Your task to perform on an android device: Open Yahoo.com Image 0: 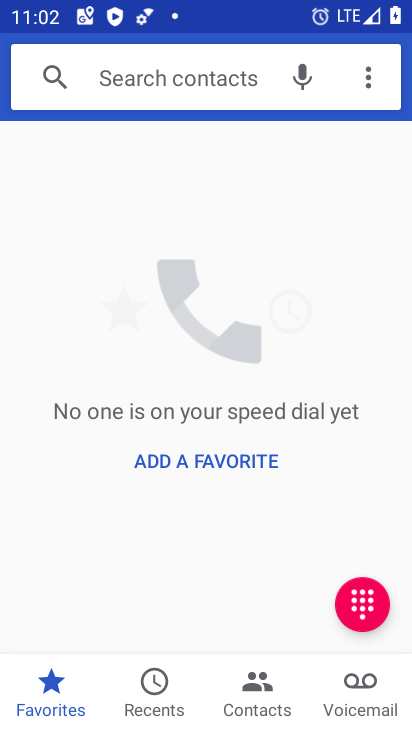
Step 0: press home button
Your task to perform on an android device: Open Yahoo.com Image 1: 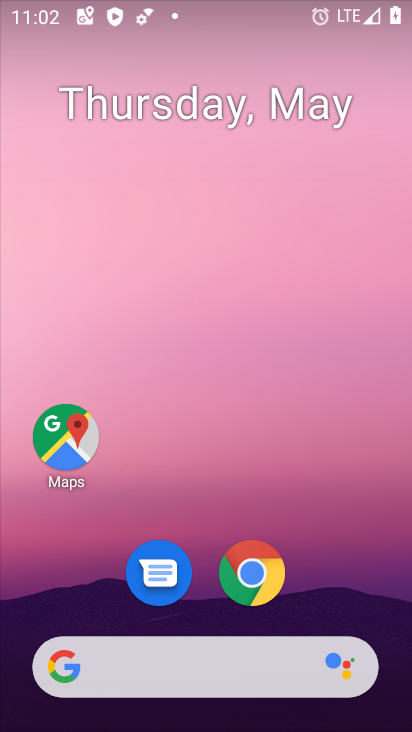
Step 1: click (267, 574)
Your task to perform on an android device: Open Yahoo.com Image 2: 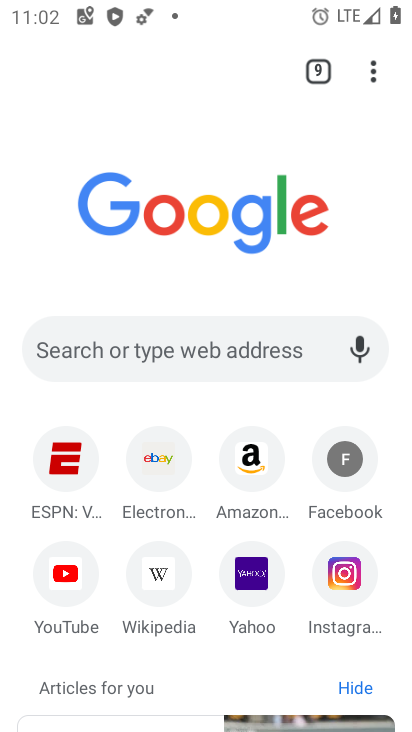
Step 2: click (307, 66)
Your task to perform on an android device: Open Yahoo.com Image 3: 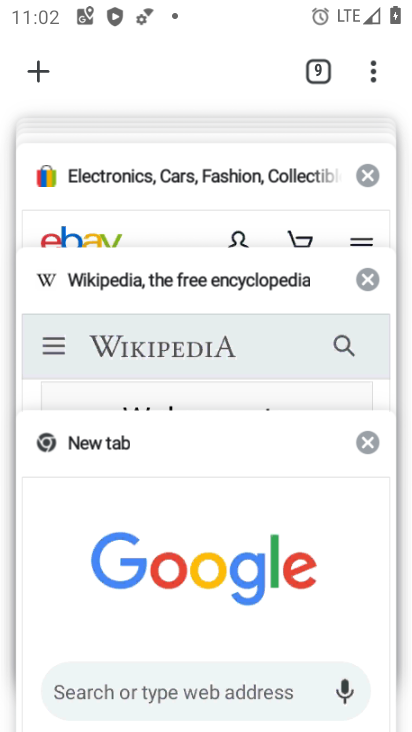
Step 3: click (34, 82)
Your task to perform on an android device: Open Yahoo.com Image 4: 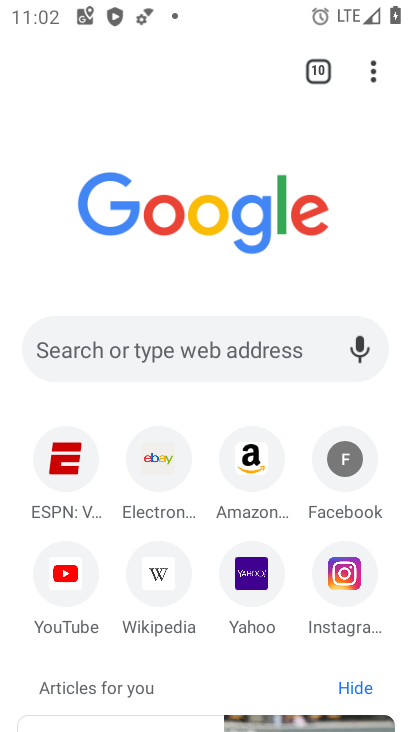
Step 4: click (258, 574)
Your task to perform on an android device: Open Yahoo.com Image 5: 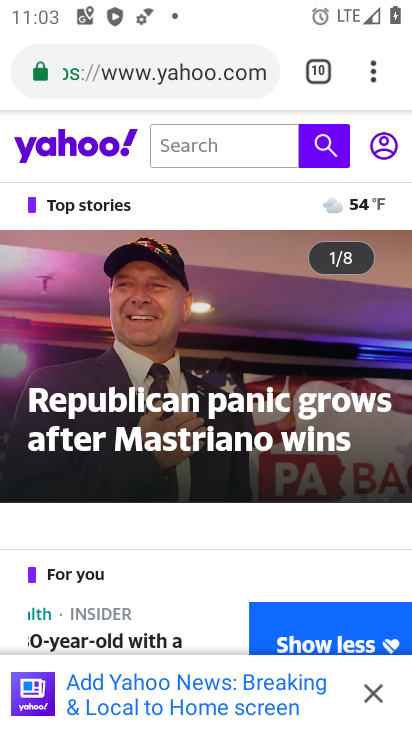
Step 5: task complete